Your task to perform on an android device: uninstall "Cash App" Image 0: 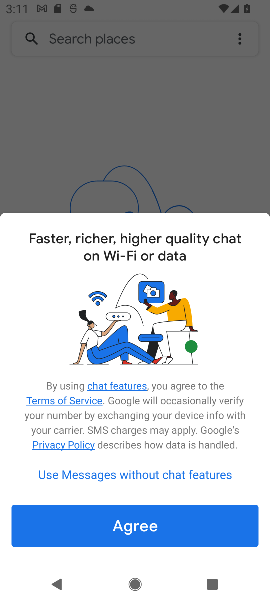
Step 0: press home button
Your task to perform on an android device: uninstall "Cash App" Image 1: 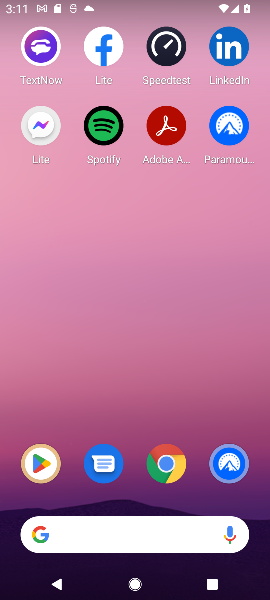
Step 1: drag from (97, 539) to (173, 182)
Your task to perform on an android device: uninstall "Cash App" Image 2: 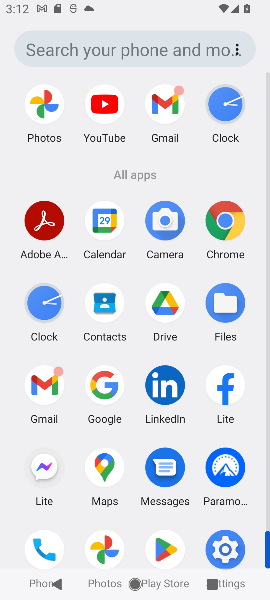
Step 2: click (166, 553)
Your task to perform on an android device: uninstall "Cash App" Image 3: 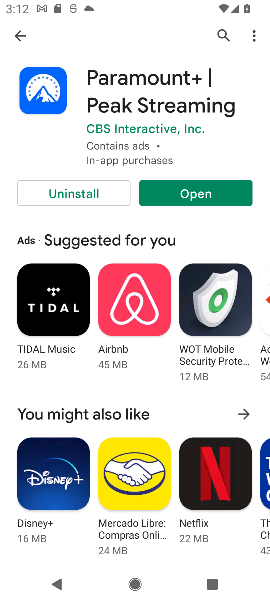
Step 3: click (221, 38)
Your task to perform on an android device: uninstall "Cash App" Image 4: 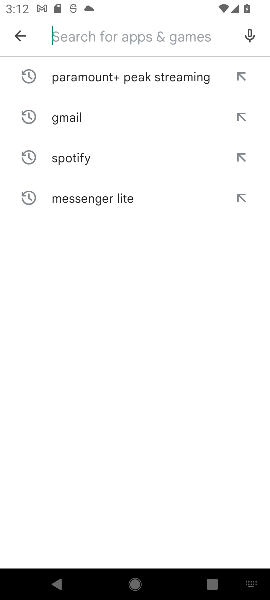
Step 4: type "Cash App"
Your task to perform on an android device: uninstall "Cash App" Image 5: 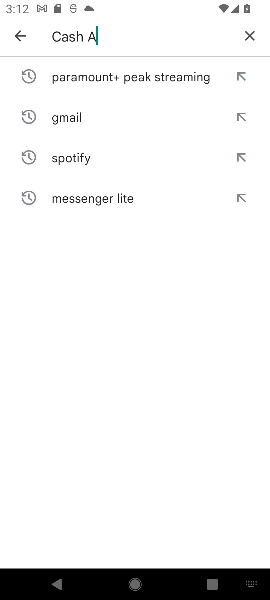
Step 5: type ""
Your task to perform on an android device: uninstall "Cash App" Image 6: 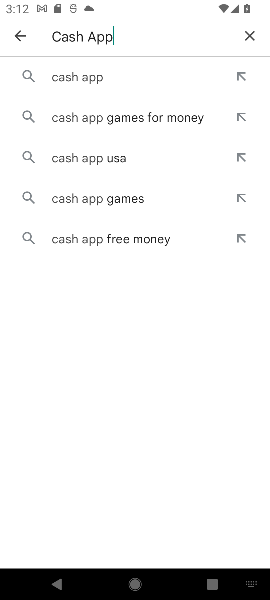
Step 6: click (70, 78)
Your task to perform on an android device: uninstall "Cash App" Image 7: 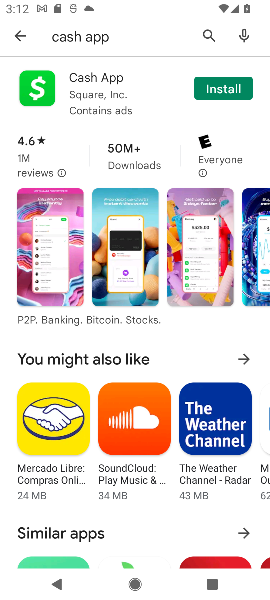
Step 7: task complete